Your task to perform on an android device: turn notification dots on Image 0: 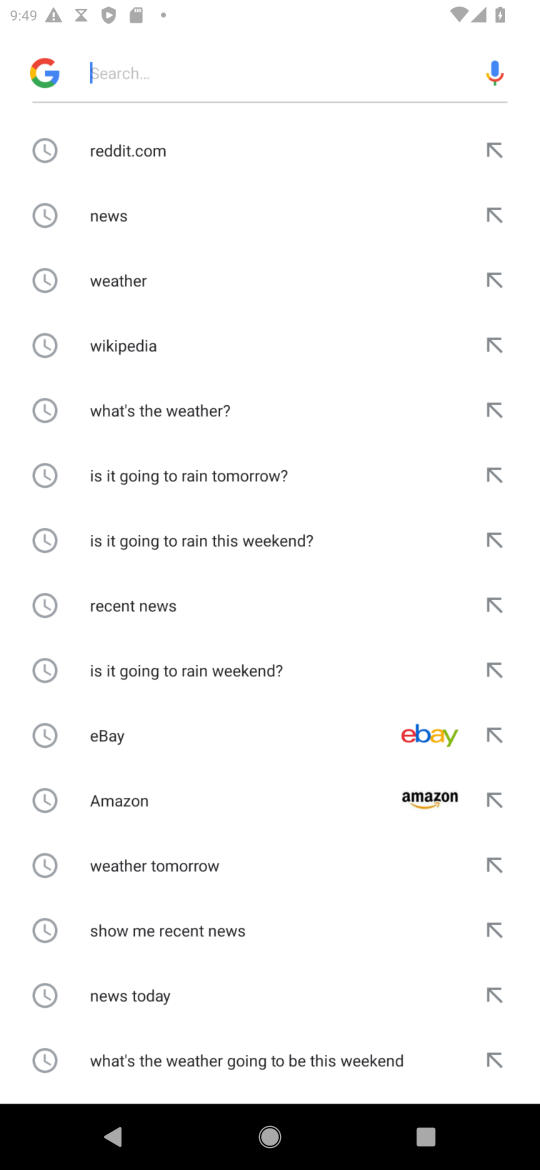
Step 0: press home button
Your task to perform on an android device: turn notification dots on Image 1: 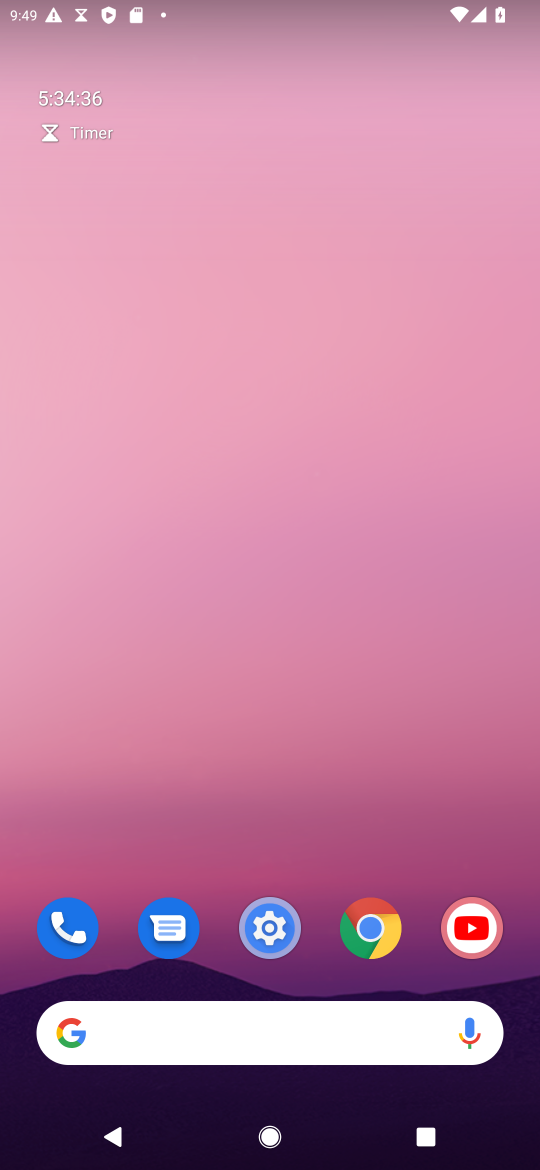
Step 1: drag from (397, 864) to (400, 157)
Your task to perform on an android device: turn notification dots on Image 2: 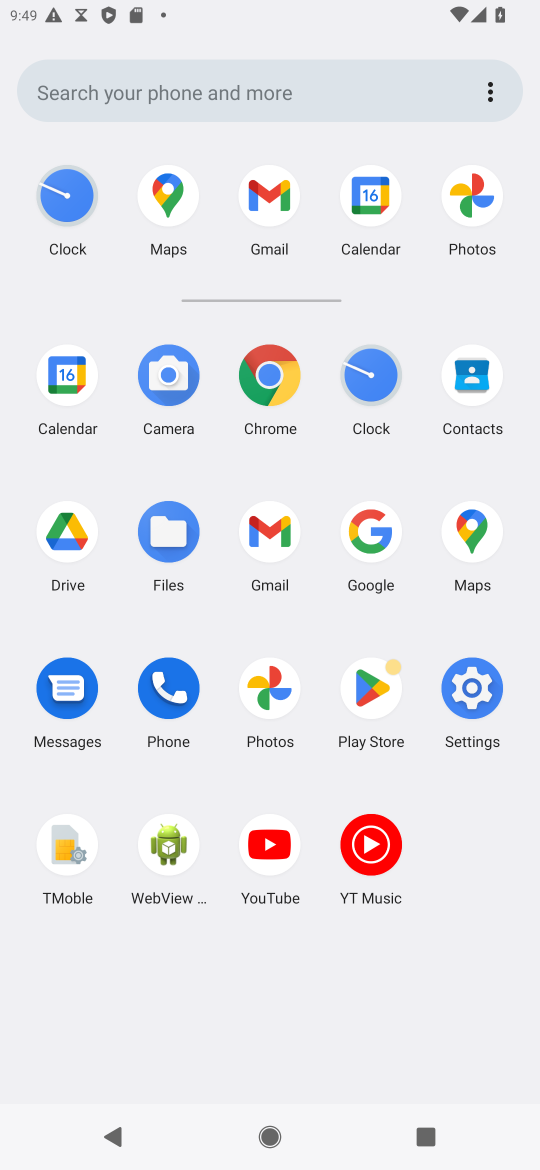
Step 2: click (463, 697)
Your task to perform on an android device: turn notification dots on Image 3: 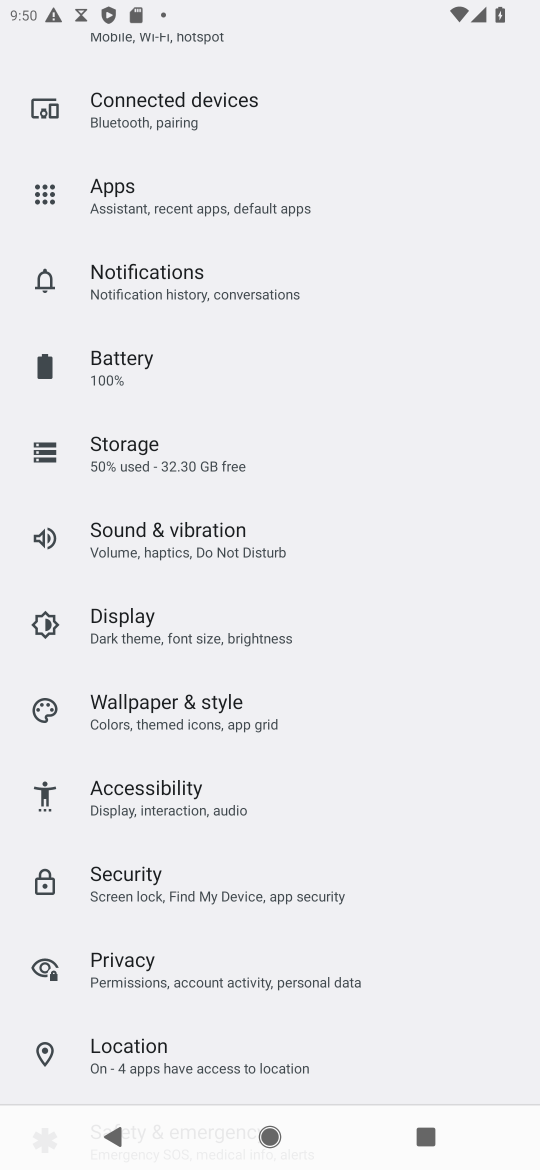
Step 3: click (247, 276)
Your task to perform on an android device: turn notification dots on Image 4: 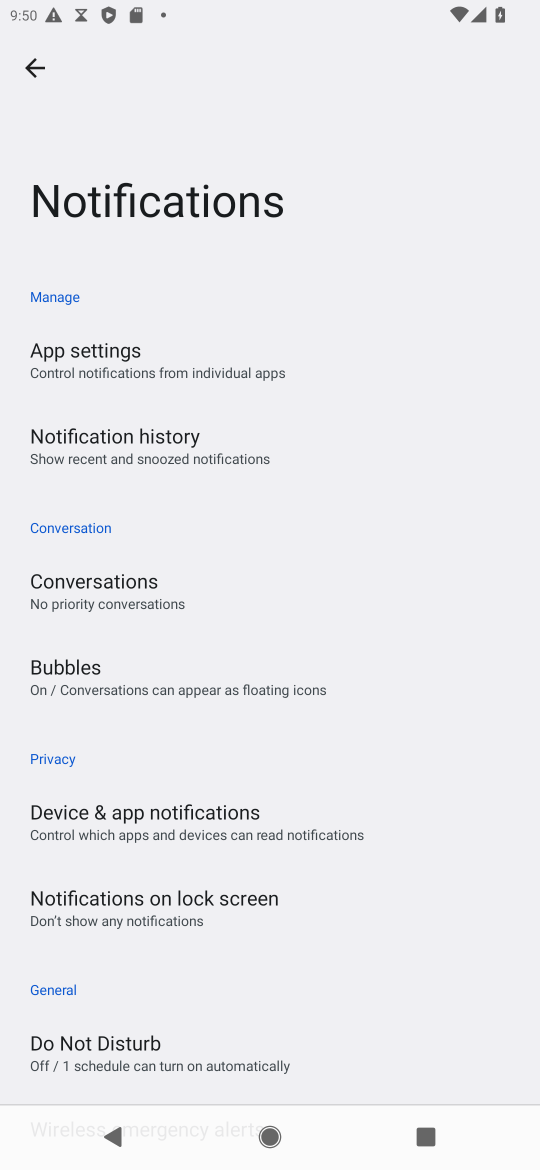
Step 4: task complete